Your task to perform on an android device: refresh tabs in the chrome app Image 0: 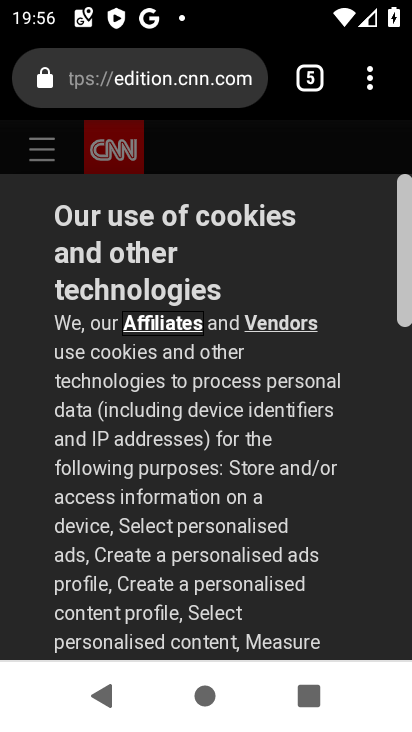
Step 0: click (378, 74)
Your task to perform on an android device: refresh tabs in the chrome app Image 1: 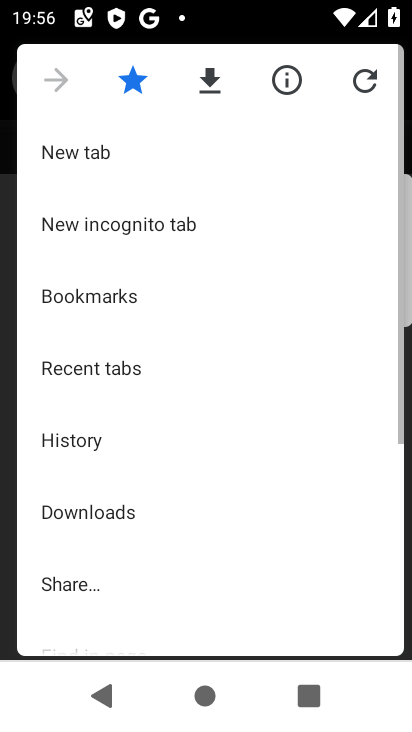
Step 1: click (366, 80)
Your task to perform on an android device: refresh tabs in the chrome app Image 2: 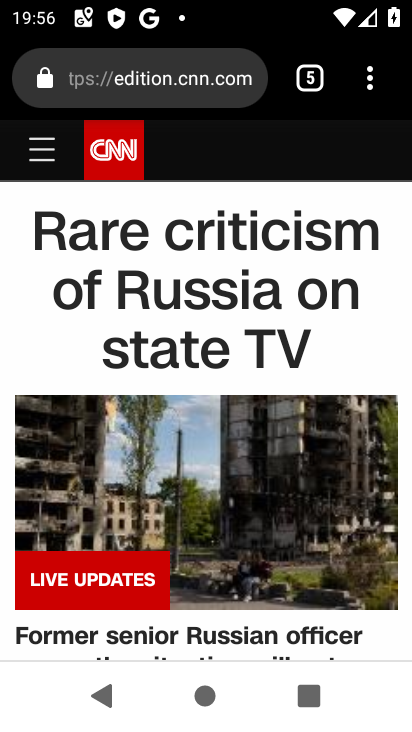
Step 2: task complete